Your task to perform on an android device: Go to display settings Image 0: 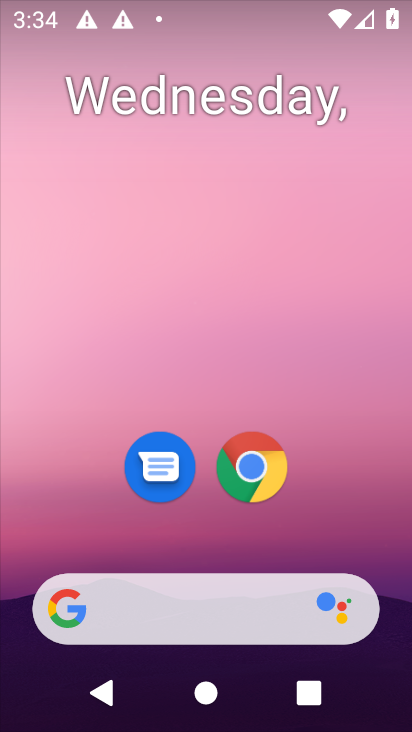
Step 0: drag from (50, 673) to (81, 267)
Your task to perform on an android device: Go to display settings Image 1: 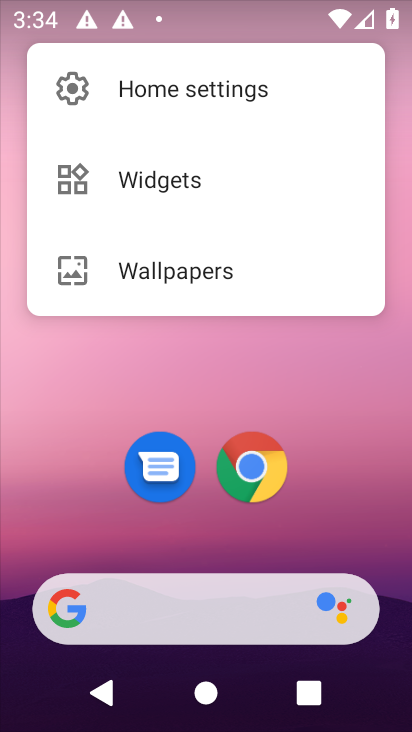
Step 1: drag from (21, 653) to (41, 324)
Your task to perform on an android device: Go to display settings Image 2: 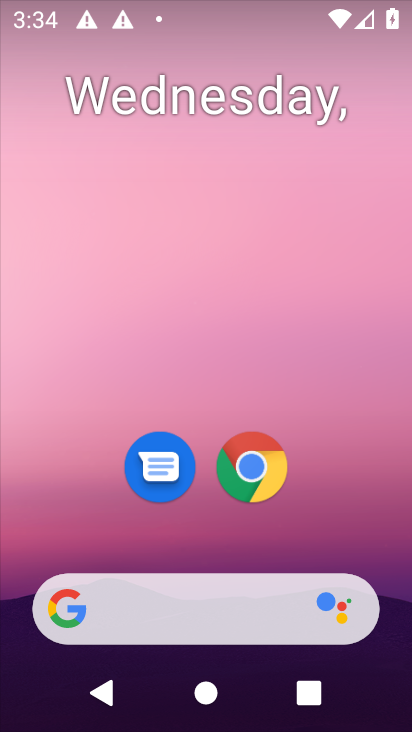
Step 2: drag from (7, 671) to (87, 405)
Your task to perform on an android device: Go to display settings Image 3: 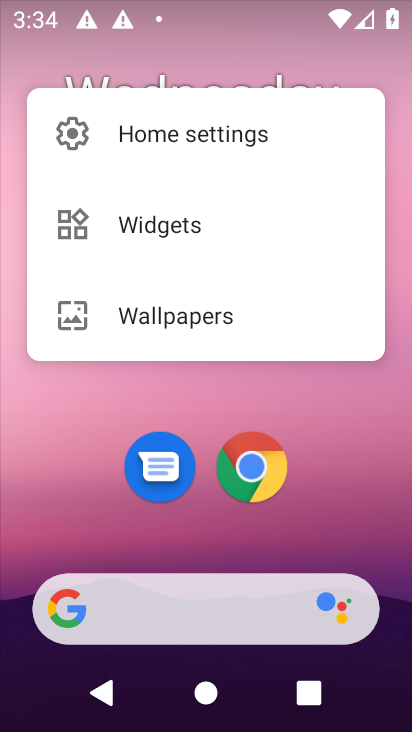
Step 3: drag from (0, 648) to (43, 422)
Your task to perform on an android device: Go to display settings Image 4: 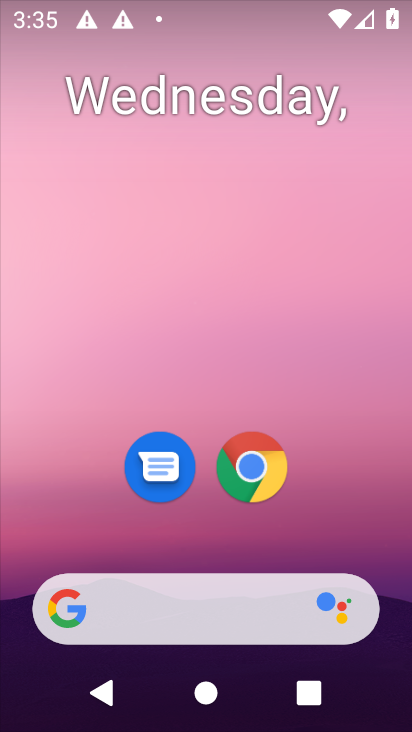
Step 4: drag from (54, 694) to (3, 181)
Your task to perform on an android device: Go to display settings Image 5: 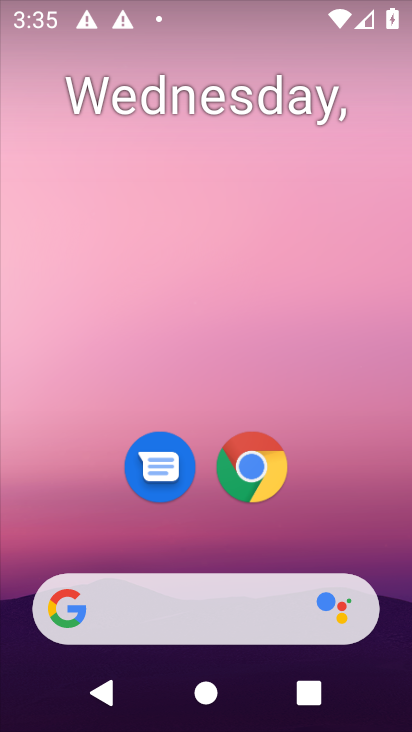
Step 5: drag from (65, 495) to (53, 169)
Your task to perform on an android device: Go to display settings Image 6: 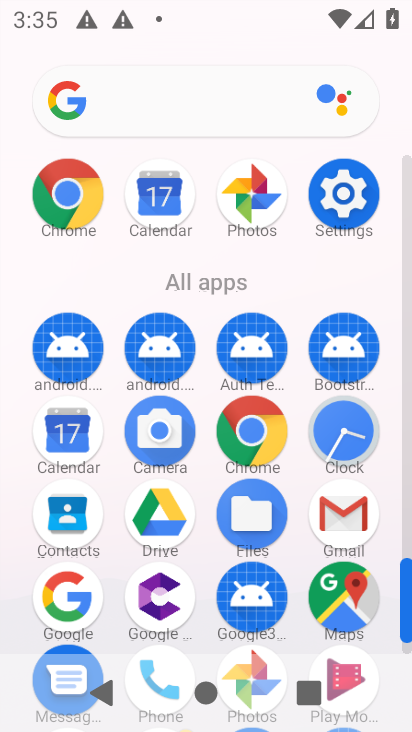
Step 6: click (345, 200)
Your task to perform on an android device: Go to display settings Image 7: 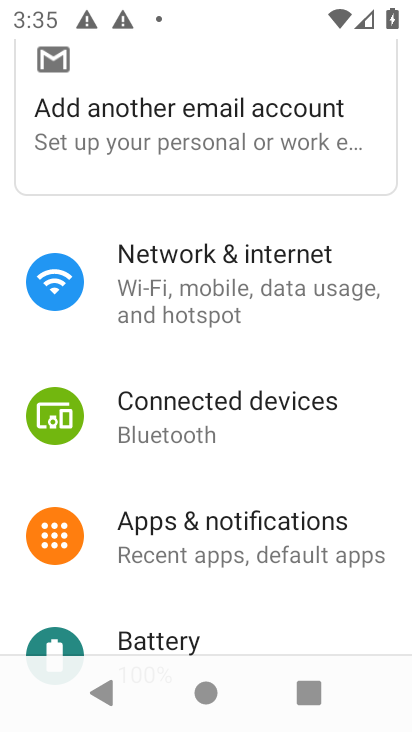
Step 7: drag from (312, 622) to (233, 139)
Your task to perform on an android device: Go to display settings Image 8: 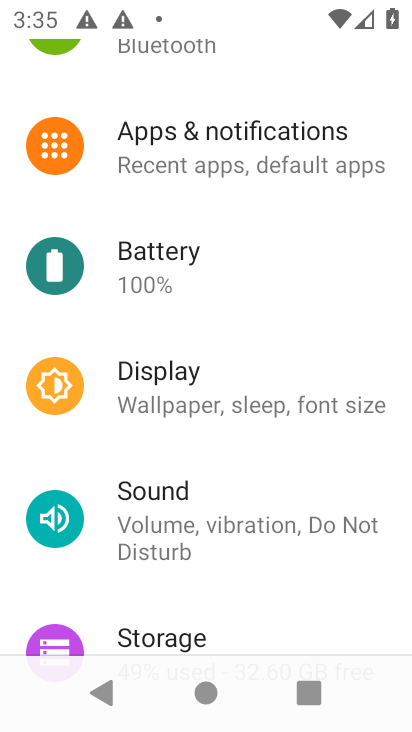
Step 8: click (179, 394)
Your task to perform on an android device: Go to display settings Image 9: 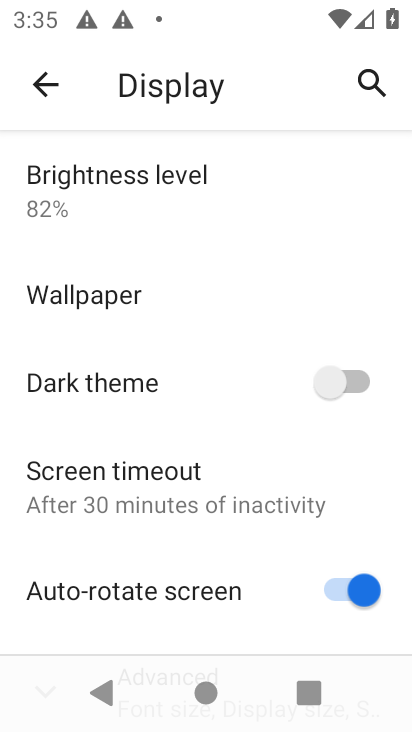
Step 9: task complete